Your task to perform on an android device: Open Chrome and go to the settings page Image 0: 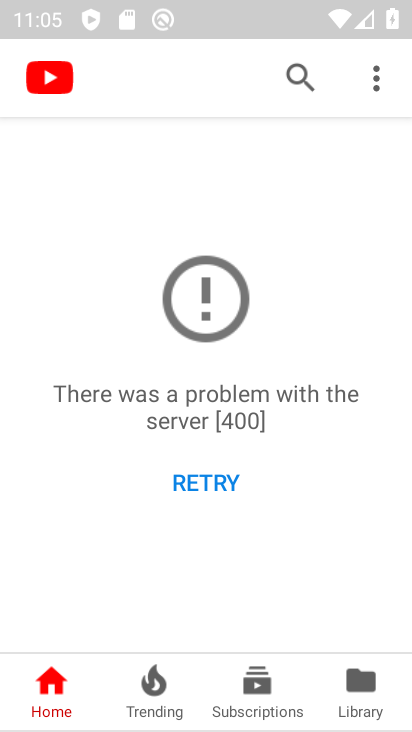
Step 0: press home button
Your task to perform on an android device: Open Chrome and go to the settings page Image 1: 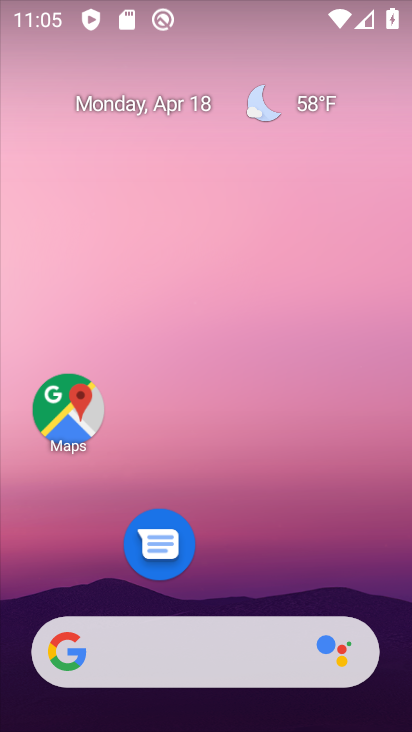
Step 1: drag from (256, 564) to (268, 37)
Your task to perform on an android device: Open Chrome and go to the settings page Image 2: 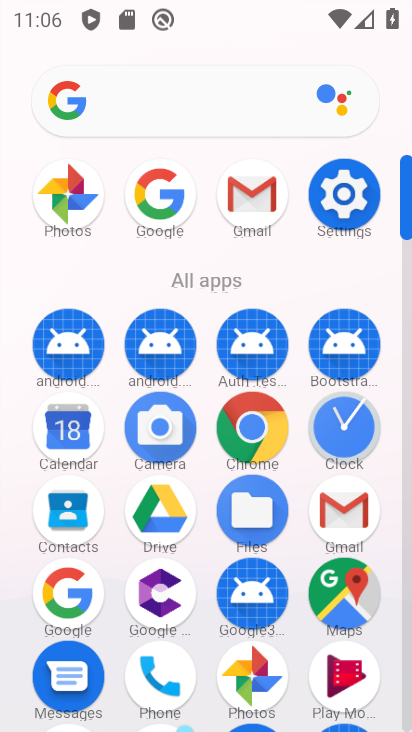
Step 2: click (253, 426)
Your task to perform on an android device: Open Chrome and go to the settings page Image 3: 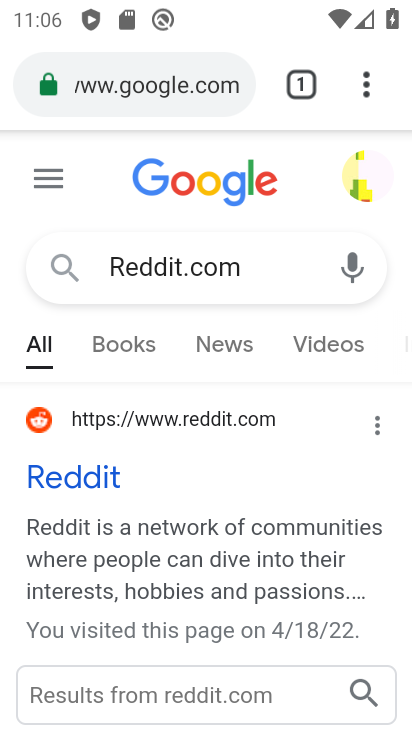
Step 3: click (368, 84)
Your task to perform on an android device: Open Chrome and go to the settings page Image 4: 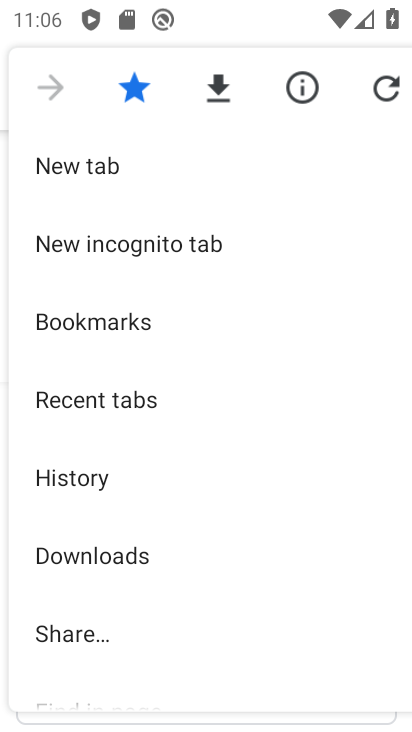
Step 4: drag from (154, 502) to (163, 397)
Your task to perform on an android device: Open Chrome and go to the settings page Image 5: 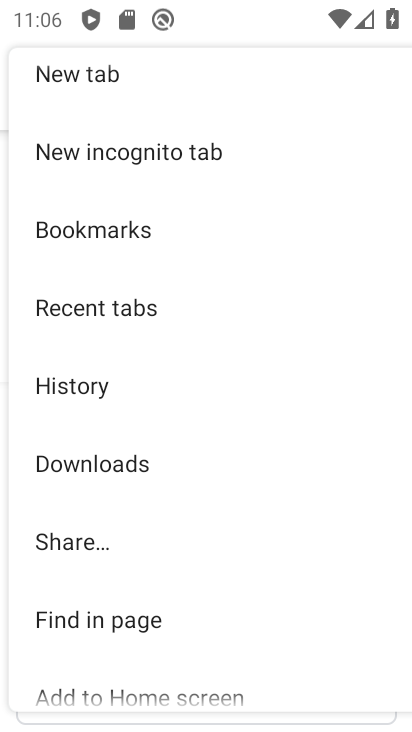
Step 5: drag from (168, 489) to (187, 377)
Your task to perform on an android device: Open Chrome and go to the settings page Image 6: 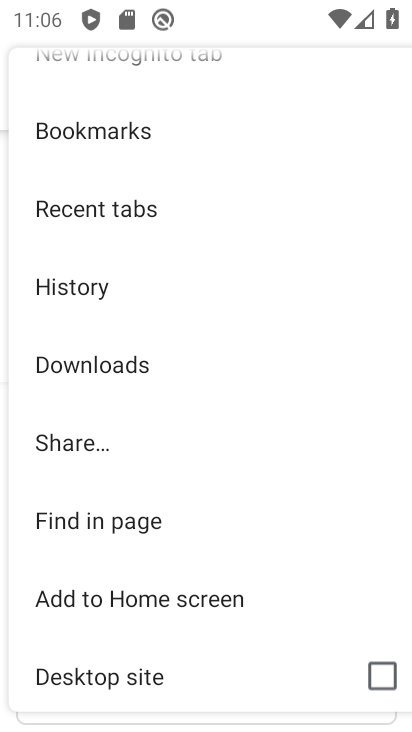
Step 6: drag from (184, 542) to (204, 408)
Your task to perform on an android device: Open Chrome and go to the settings page Image 7: 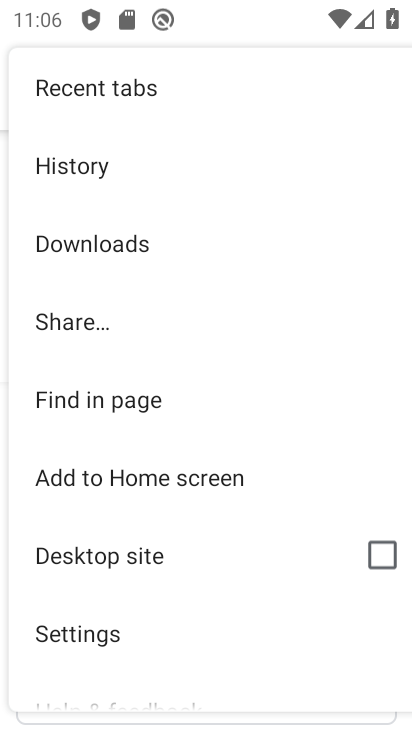
Step 7: drag from (177, 539) to (210, 446)
Your task to perform on an android device: Open Chrome and go to the settings page Image 8: 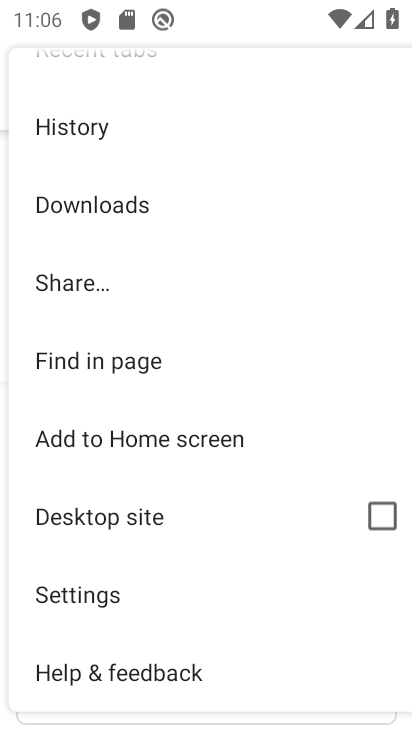
Step 8: click (96, 592)
Your task to perform on an android device: Open Chrome and go to the settings page Image 9: 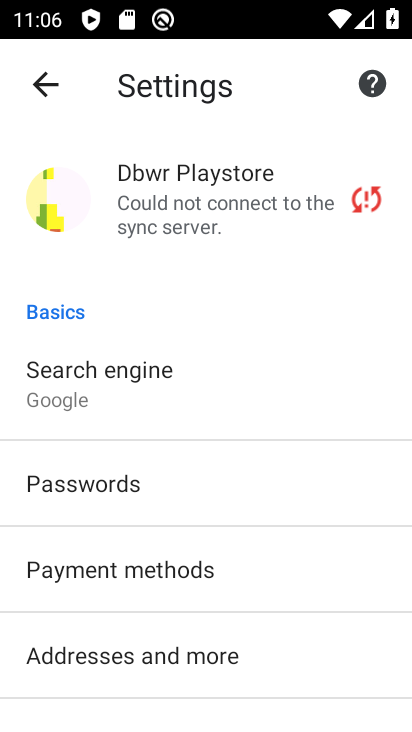
Step 9: task complete